Your task to perform on an android device: turn off priority inbox in the gmail app Image 0: 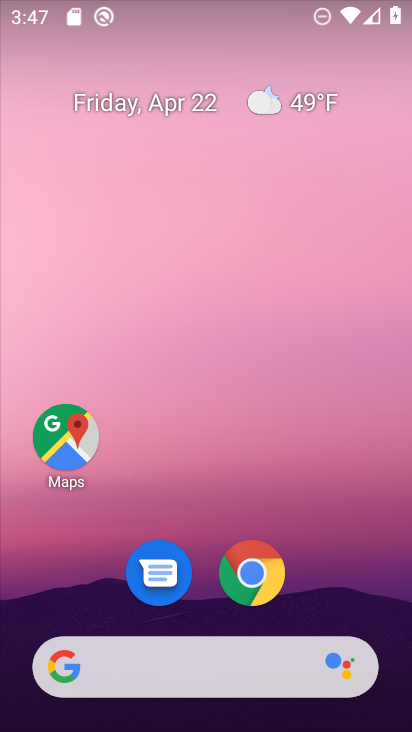
Step 0: drag from (320, 565) to (311, 100)
Your task to perform on an android device: turn off priority inbox in the gmail app Image 1: 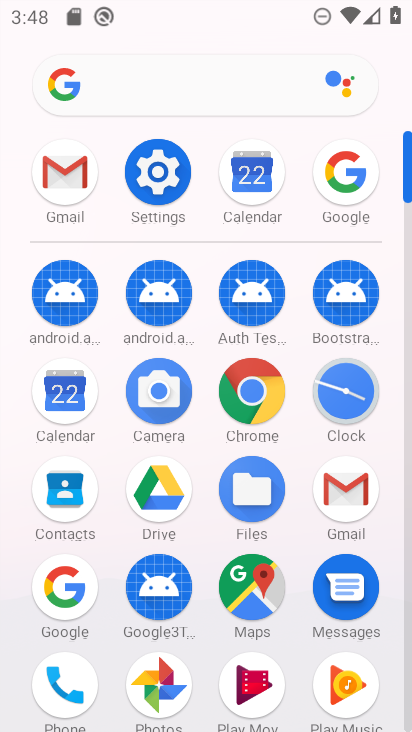
Step 1: click (347, 482)
Your task to perform on an android device: turn off priority inbox in the gmail app Image 2: 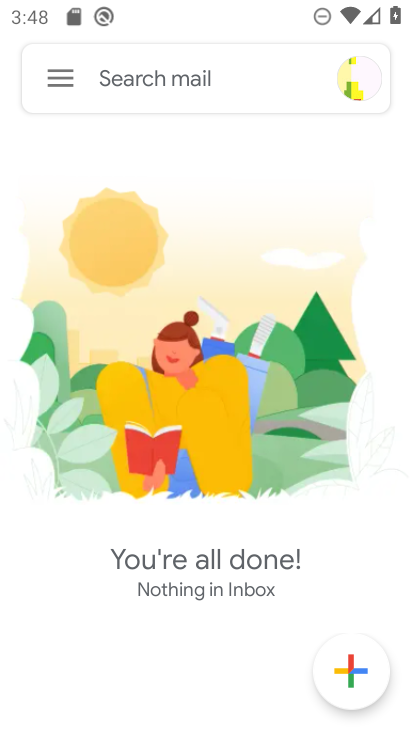
Step 2: click (49, 77)
Your task to perform on an android device: turn off priority inbox in the gmail app Image 3: 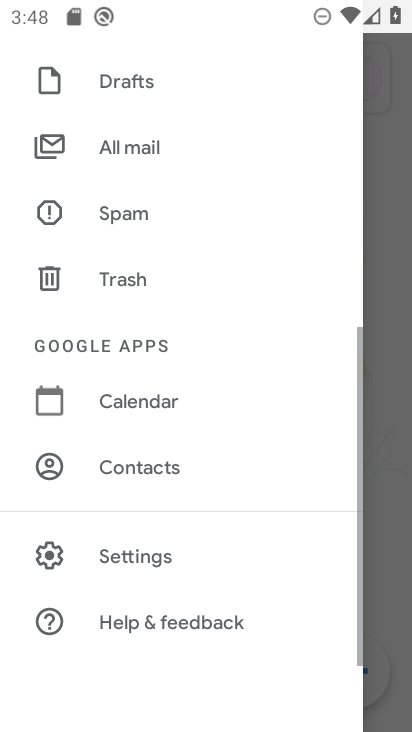
Step 3: click (156, 572)
Your task to perform on an android device: turn off priority inbox in the gmail app Image 4: 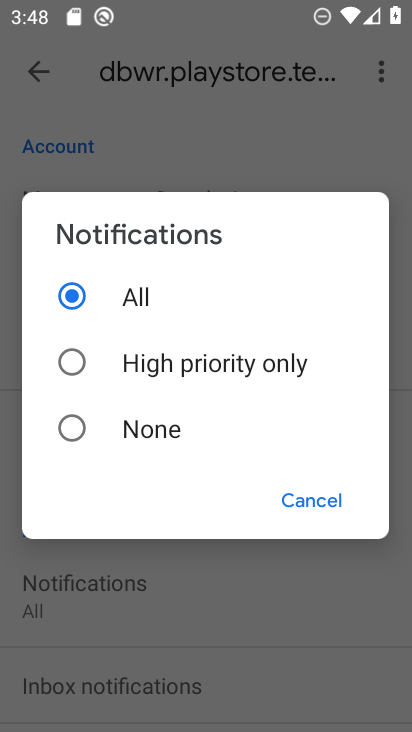
Step 4: click (308, 490)
Your task to perform on an android device: turn off priority inbox in the gmail app Image 5: 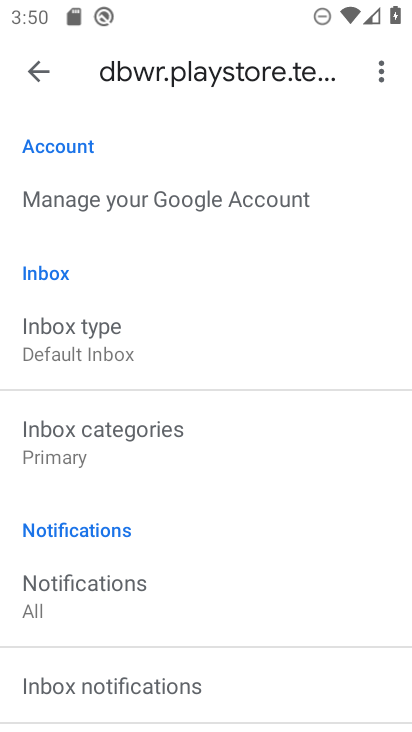
Step 5: click (181, 329)
Your task to perform on an android device: turn off priority inbox in the gmail app Image 6: 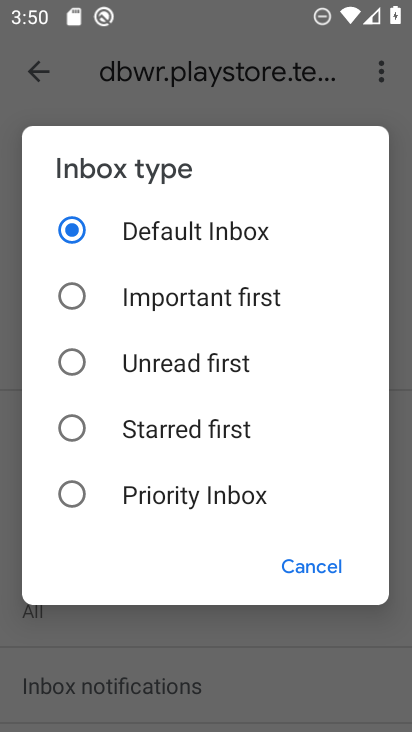
Step 6: task complete